Your task to perform on an android device: Do I have any events this weekend? Image 0: 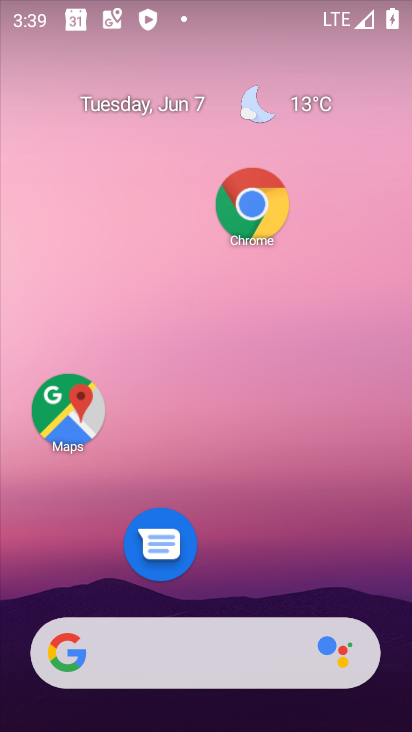
Step 0: press home button
Your task to perform on an android device: Do I have any events this weekend? Image 1: 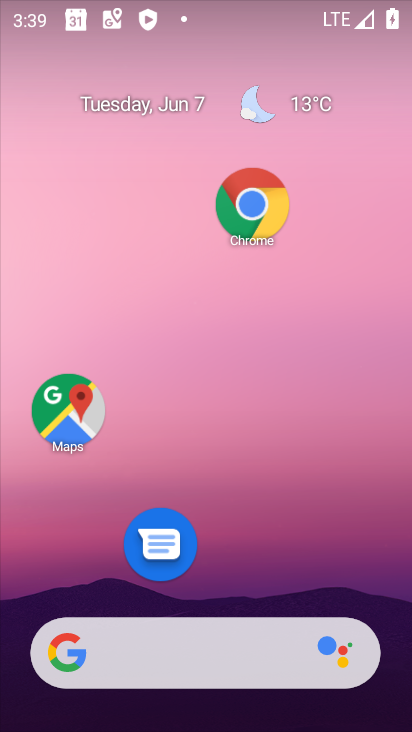
Step 1: drag from (224, 576) to (234, 66)
Your task to perform on an android device: Do I have any events this weekend? Image 2: 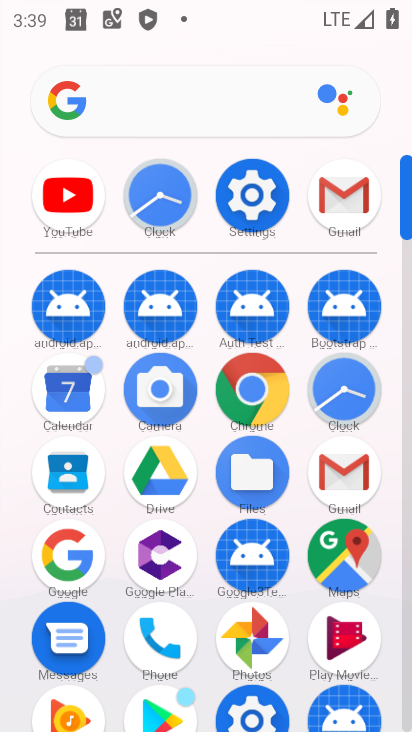
Step 2: click (68, 384)
Your task to perform on an android device: Do I have any events this weekend? Image 3: 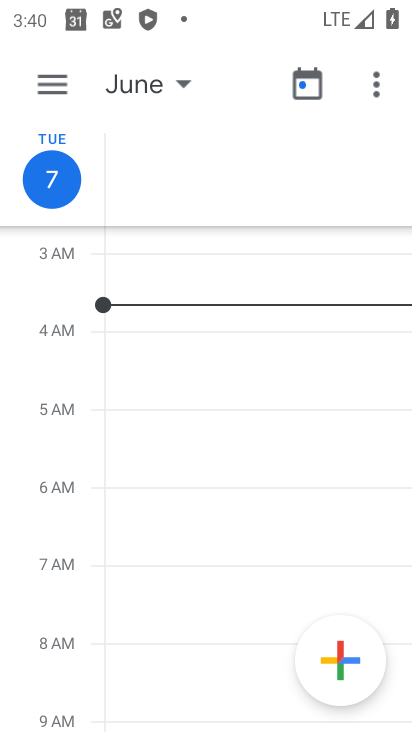
Step 3: click (83, 205)
Your task to perform on an android device: Do I have any events this weekend? Image 4: 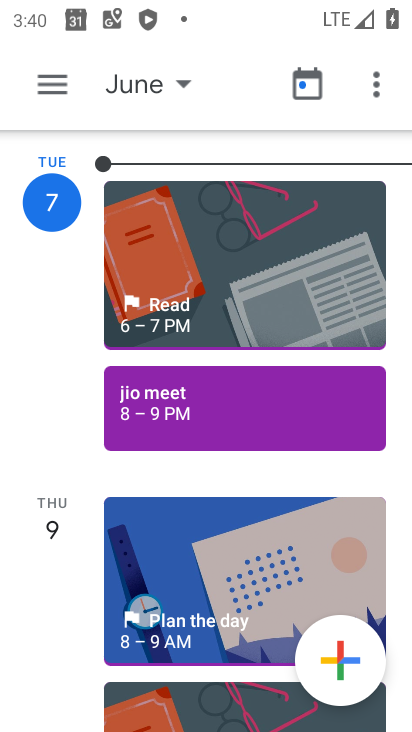
Step 4: drag from (82, 569) to (81, 482)
Your task to perform on an android device: Do I have any events this weekend? Image 5: 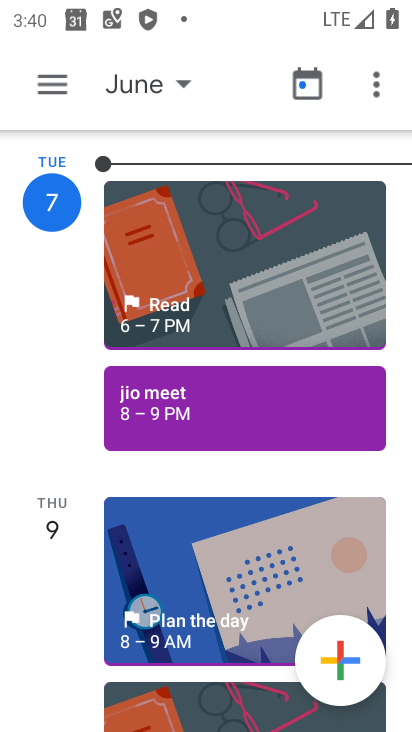
Step 5: drag from (79, 232) to (86, 153)
Your task to perform on an android device: Do I have any events this weekend? Image 6: 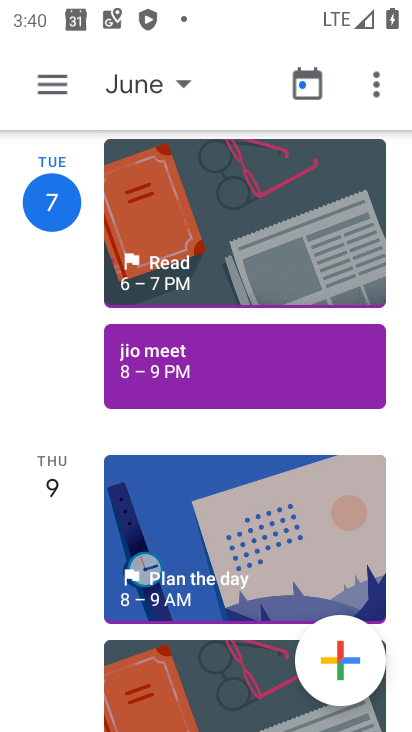
Step 6: click (61, 536)
Your task to perform on an android device: Do I have any events this weekend? Image 7: 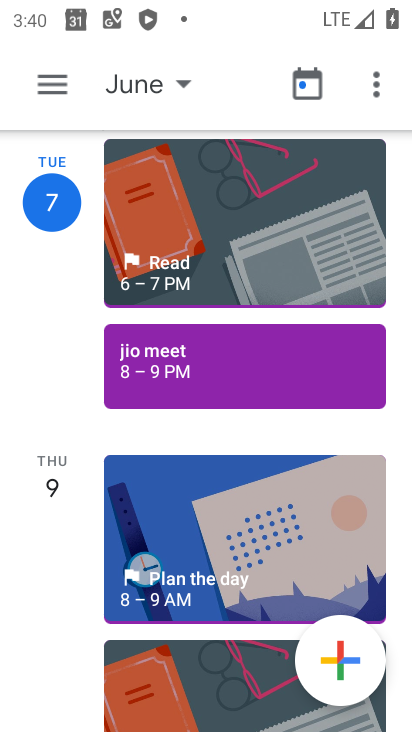
Step 7: drag from (87, 257) to (102, 103)
Your task to perform on an android device: Do I have any events this weekend? Image 8: 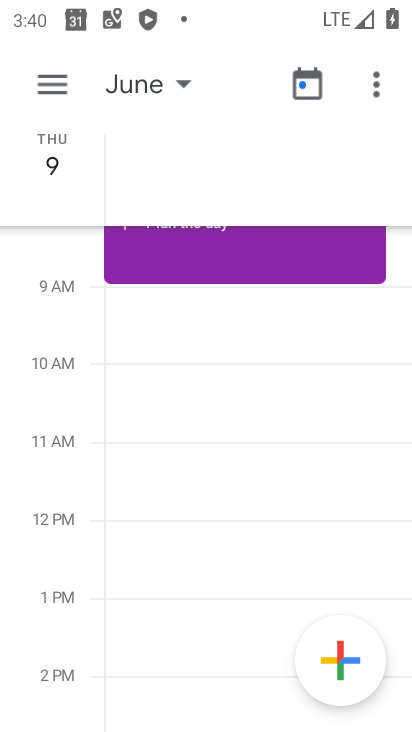
Step 8: click (70, 185)
Your task to perform on an android device: Do I have any events this weekend? Image 9: 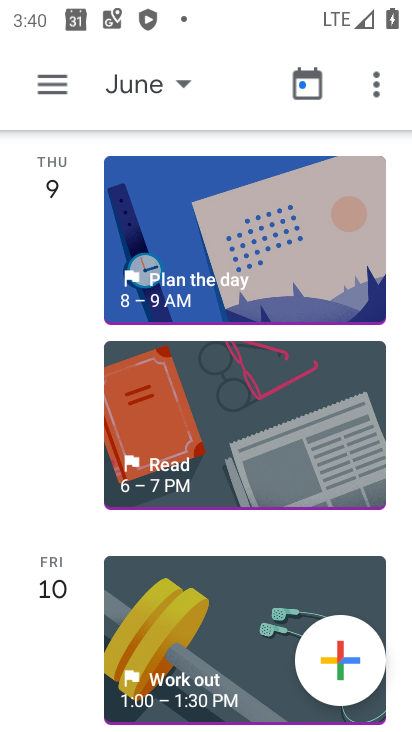
Step 9: click (74, 640)
Your task to perform on an android device: Do I have any events this weekend? Image 10: 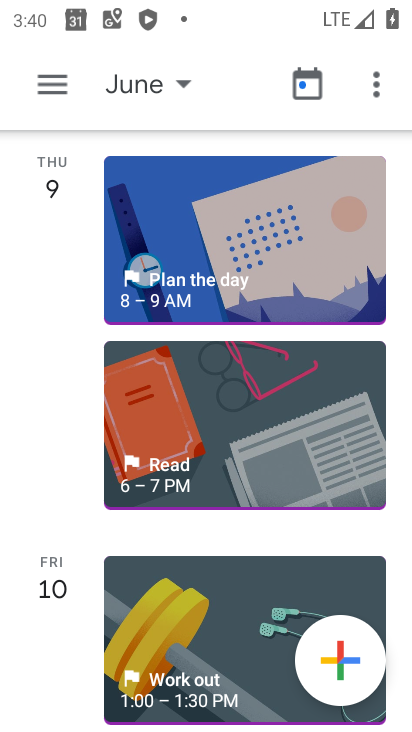
Step 10: drag from (89, 510) to (93, 289)
Your task to perform on an android device: Do I have any events this weekend? Image 11: 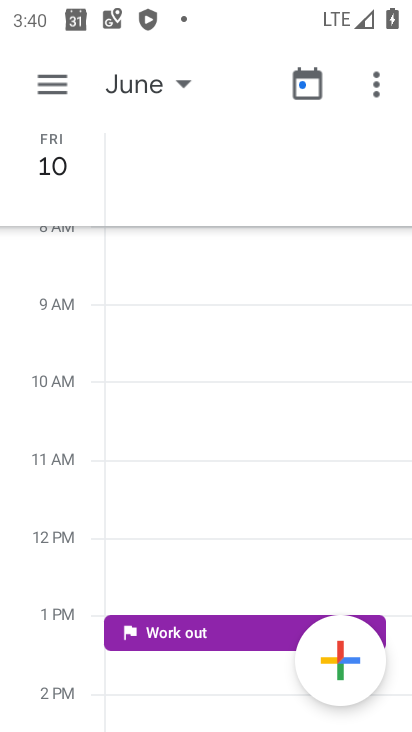
Step 11: drag from (91, 168) to (93, 124)
Your task to perform on an android device: Do I have any events this weekend? Image 12: 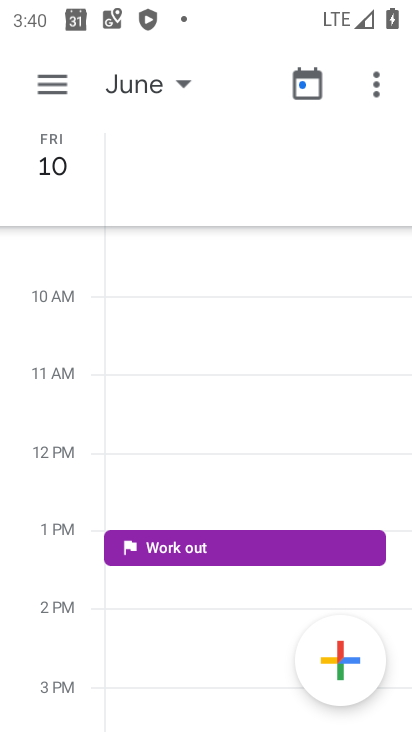
Step 12: click (74, 201)
Your task to perform on an android device: Do I have any events this weekend? Image 13: 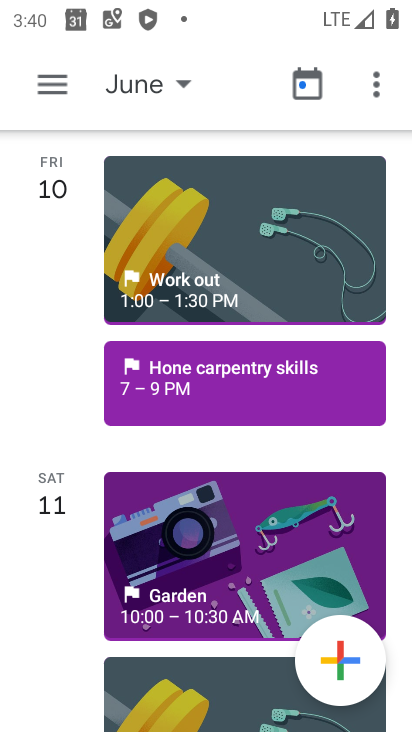
Step 13: task complete